Your task to perform on an android device: Open Android settings Image 0: 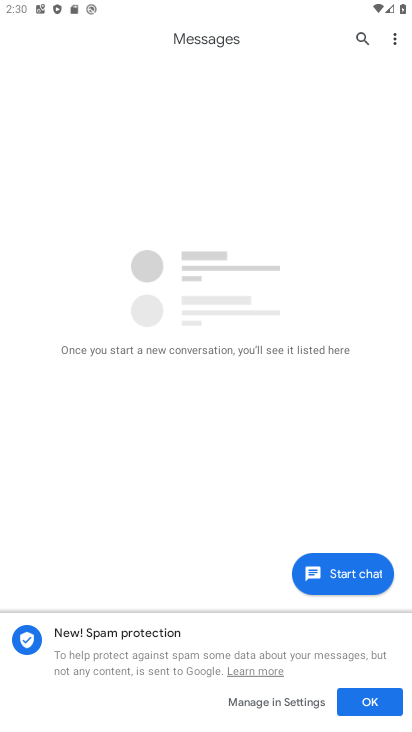
Step 0: press home button
Your task to perform on an android device: Open Android settings Image 1: 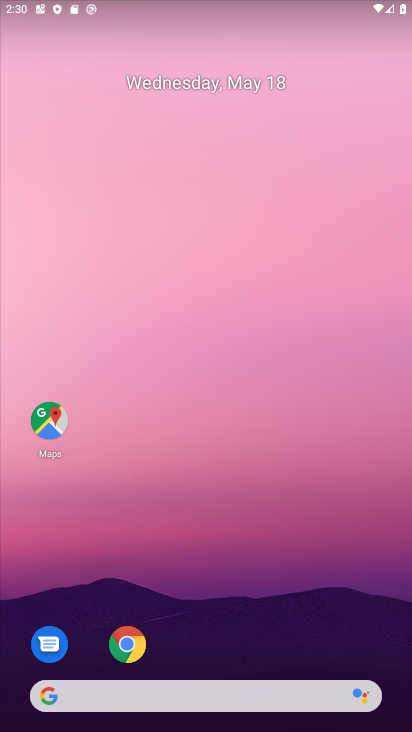
Step 1: drag from (241, 729) to (234, 173)
Your task to perform on an android device: Open Android settings Image 2: 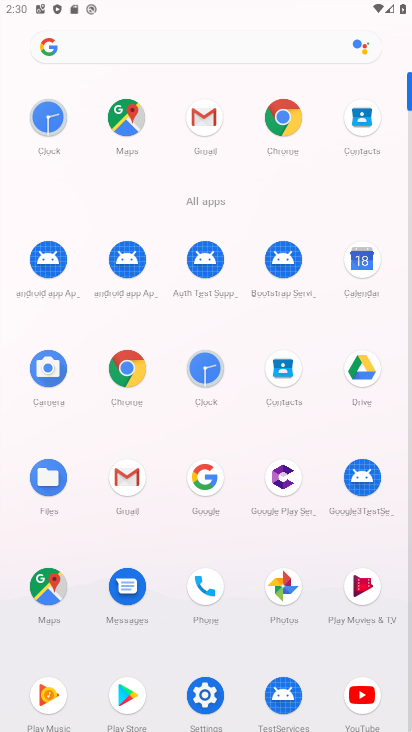
Step 2: click (206, 686)
Your task to perform on an android device: Open Android settings Image 3: 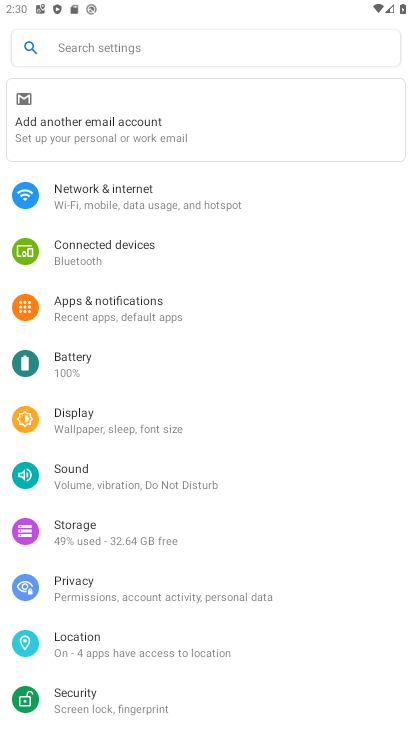
Step 3: drag from (250, 558) to (280, 20)
Your task to perform on an android device: Open Android settings Image 4: 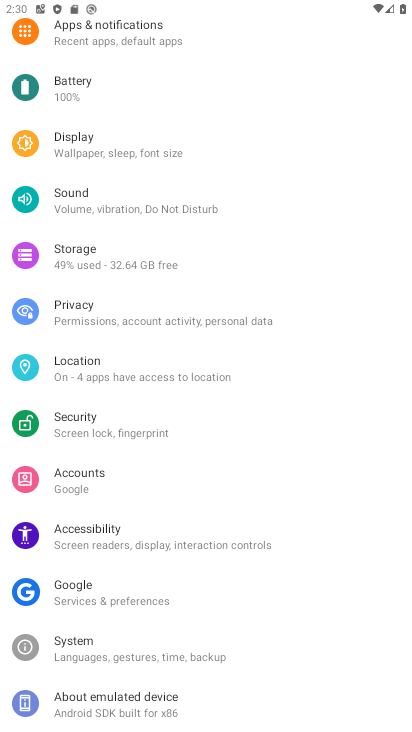
Step 4: drag from (230, 693) to (312, 125)
Your task to perform on an android device: Open Android settings Image 5: 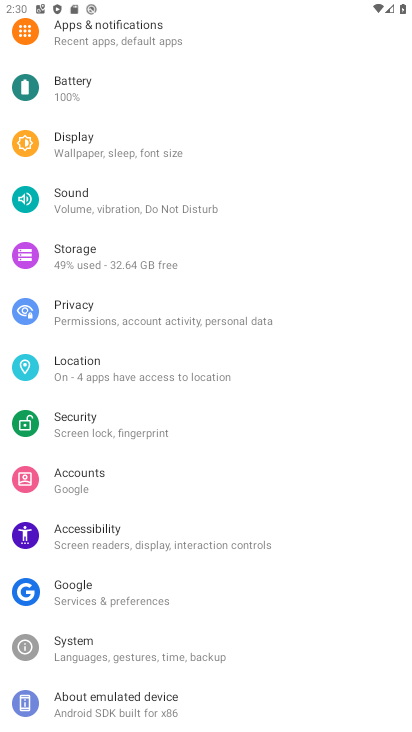
Step 5: click (184, 714)
Your task to perform on an android device: Open Android settings Image 6: 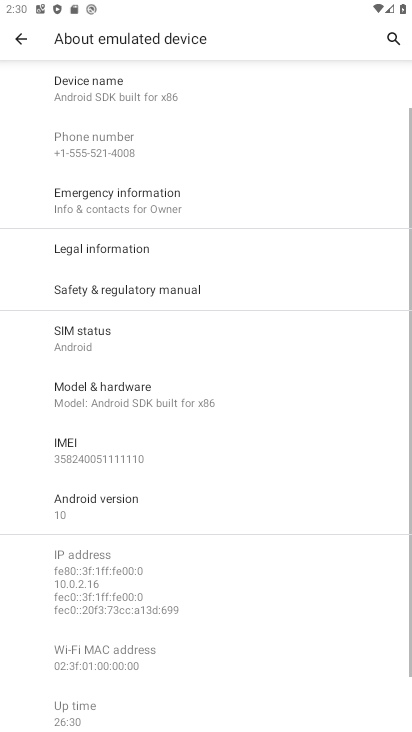
Step 6: task complete